Your task to perform on an android device: Go to eBay Image 0: 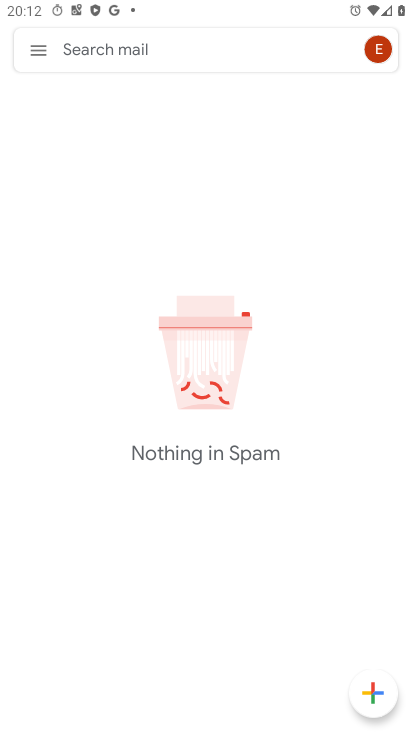
Step 0: press home button
Your task to perform on an android device: Go to eBay Image 1: 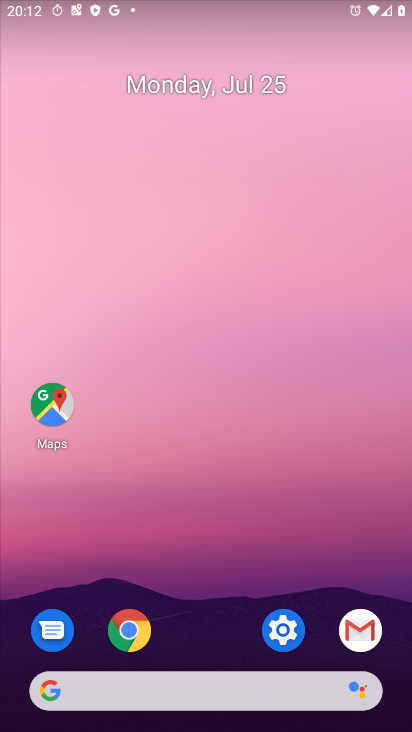
Step 1: click (134, 631)
Your task to perform on an android device: Go to eBay Image 2: 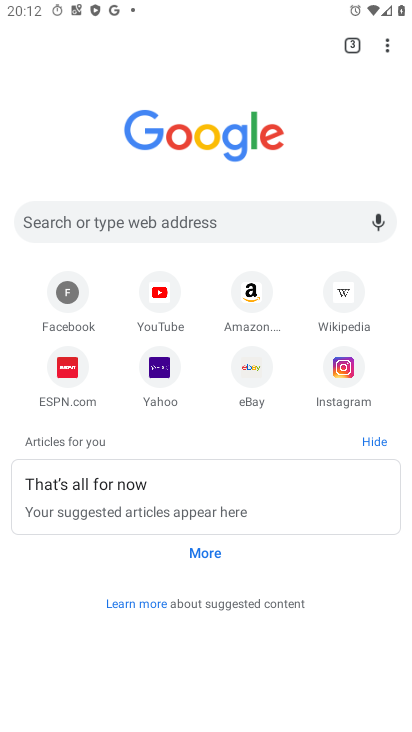
Step 2: click (250, 388)
Your task to perform on an android device: Go to eBay Image 3: 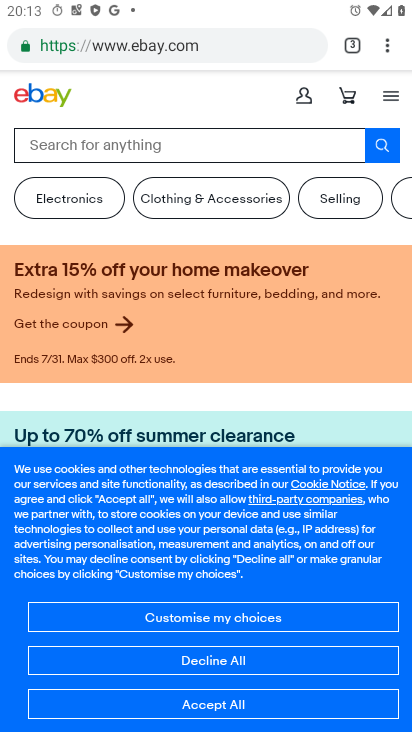
Step 3: task complete